Your task to perform on an android device: create a new album in the google photos Image 0: 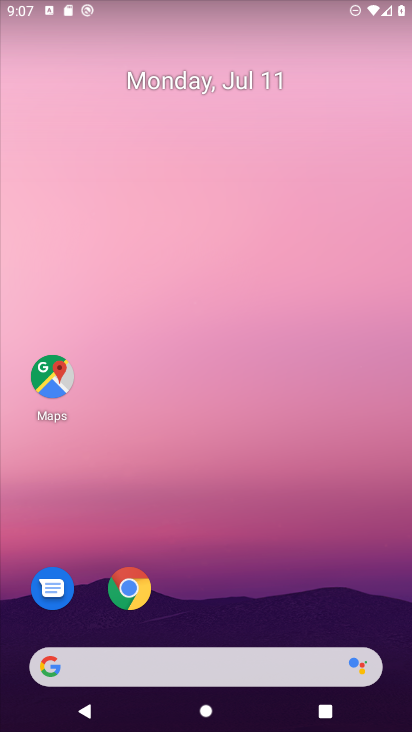
Step 0: drag from (397, 647) to (234, 65)
Your task to perform on an android device: create a new album in the google photos Image 1: 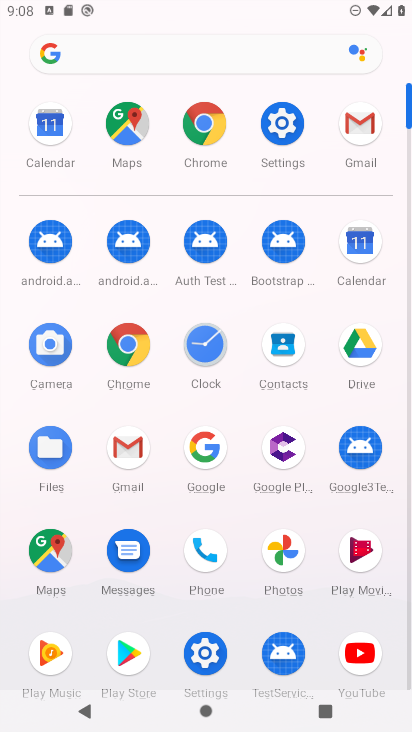
Step 1: click (285, 556)
Your task to perform on an android device: create a new album in the google photos Image 2: 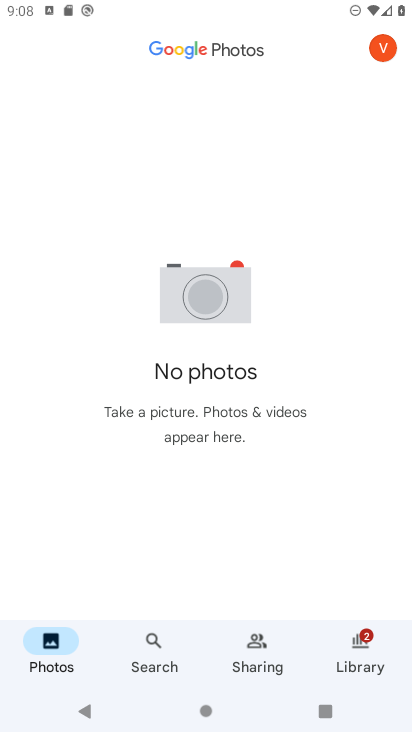
Step 2: task complete